Your task to perform on an android device: uninstall "Expedia: Hotels, Flights & Car" Image 0: 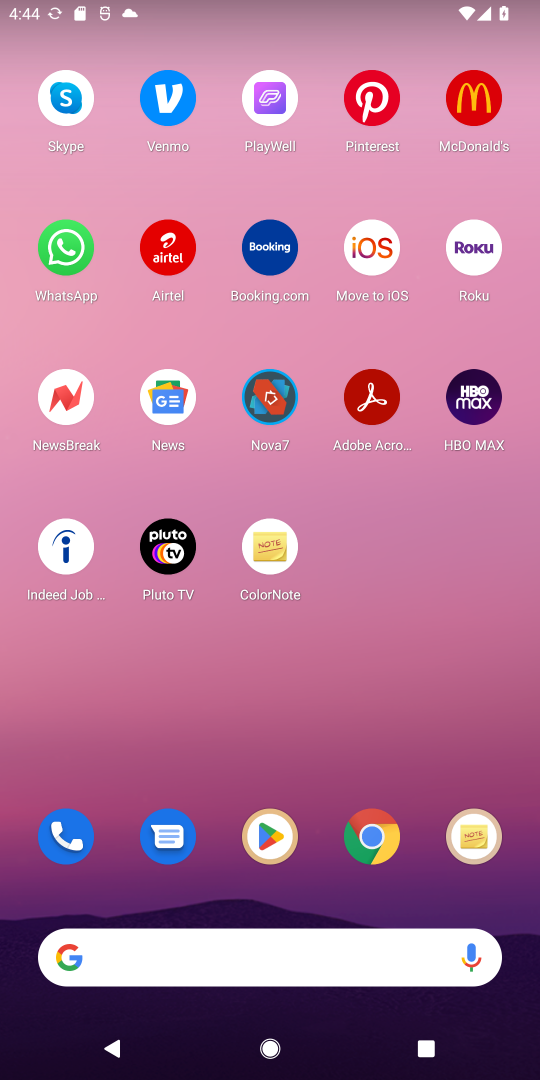
Step 0: click (268, 836)
Your task to perform on an android device: uninstall "Expedia: Hotels, Flights & Car" Image 1: 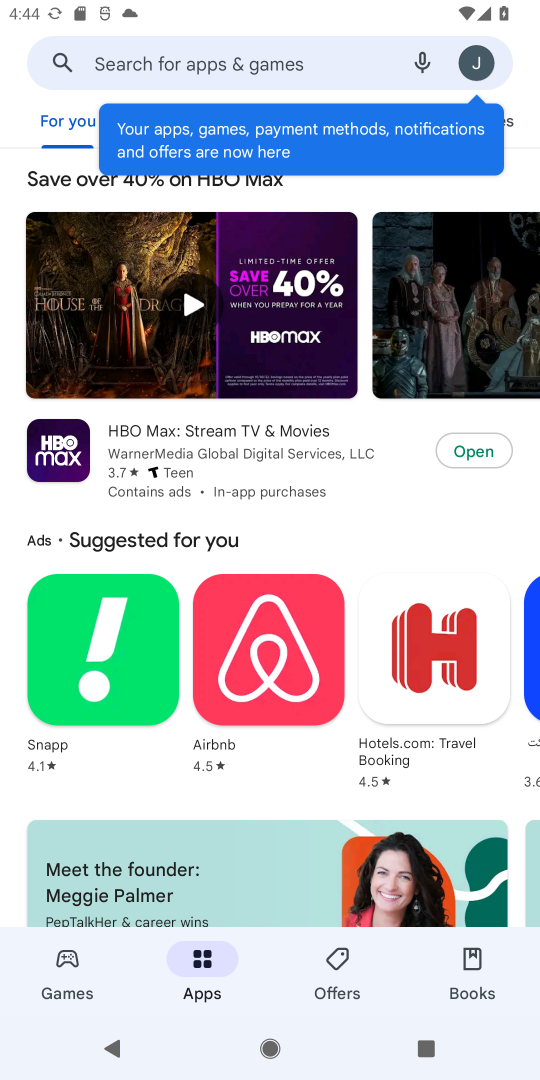
Step 1: click (70, 65)
Your task to perform on an android device: uninstall "Expedia: Hotels, Flights & Car" Image 2: 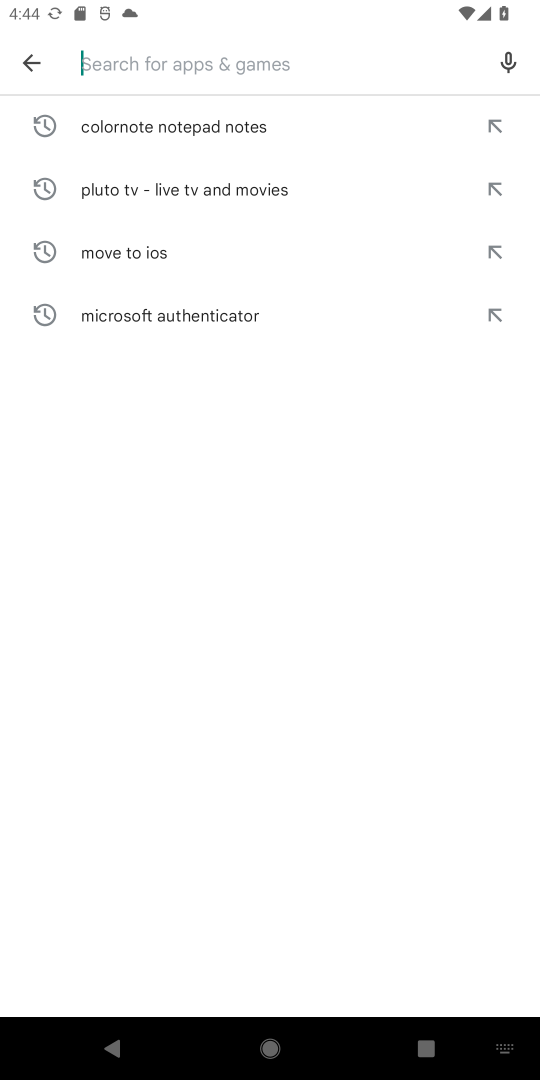
Step 2: type "Expedia: Hotels, Flights & Car"
Your task to perform on an android device: uninstall "Expedia: Hotels, Flights & Car" Image 3: 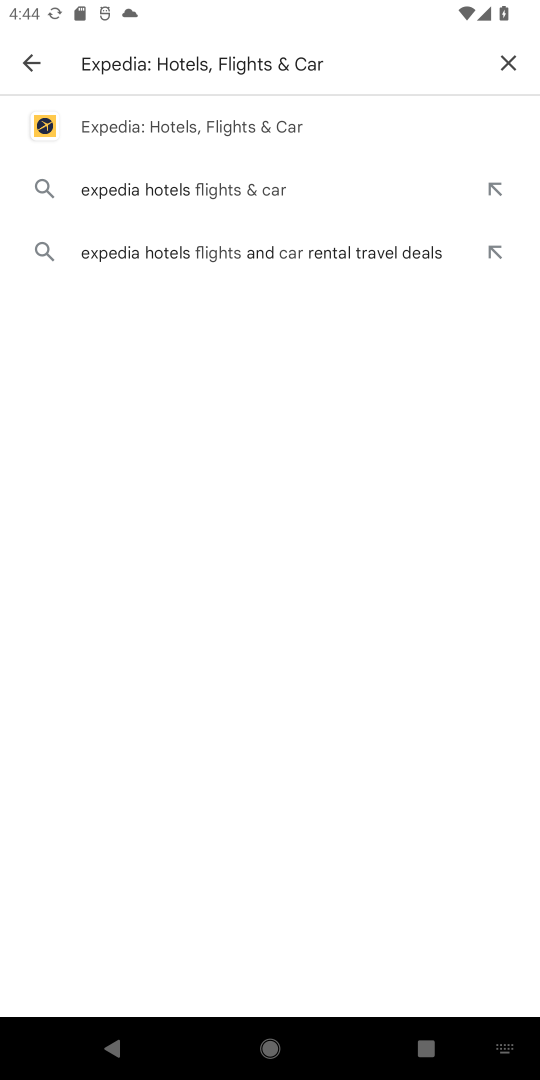
Step 3: click (147, 120)
Your task to perform on an android device: uninstall "Expedia: Hotels, Flights & Car" Image 4: 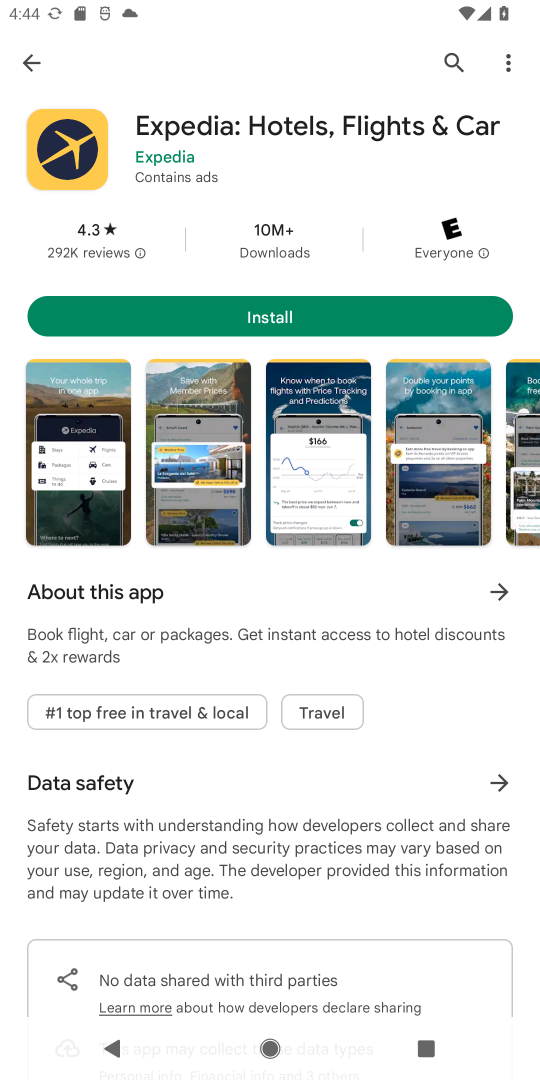
Step 4: task complete